Your task to perform on an android device: Open eBay Image 0: 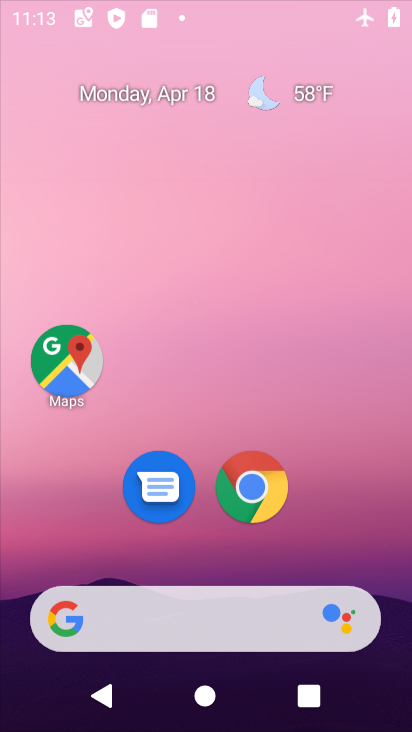
Step 0: drag from (305, 308) to (243, 140)
Your task to perform on an android device: Open eBay Image 1: 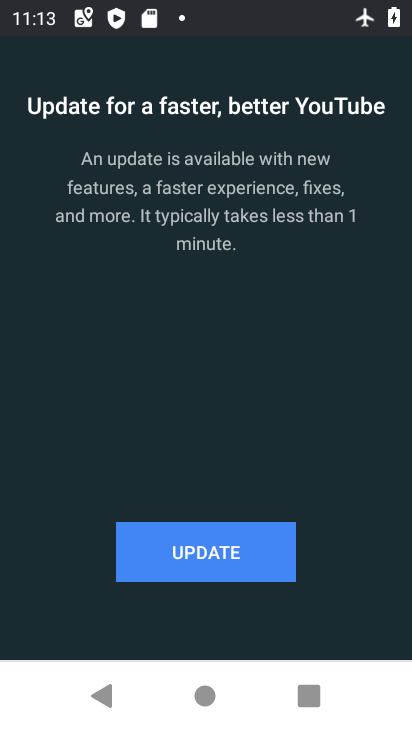
Step 1: press home button
Your task to perform on an android device: Open eBay Image 2: 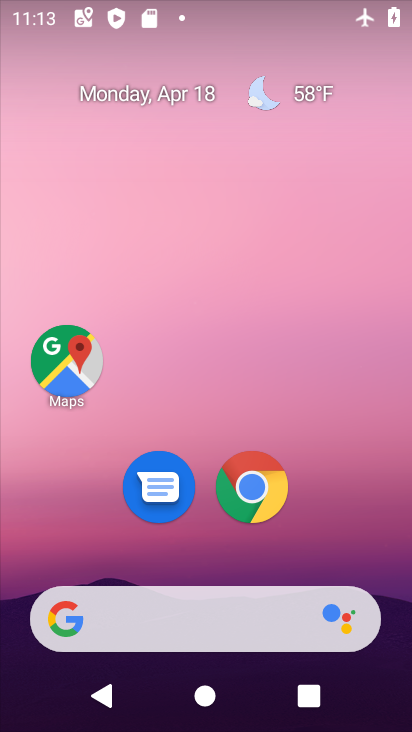
Step 2: drag from (370, 3) to (394, 506)
Your task to perform on an android device: Open eBay Image 3: 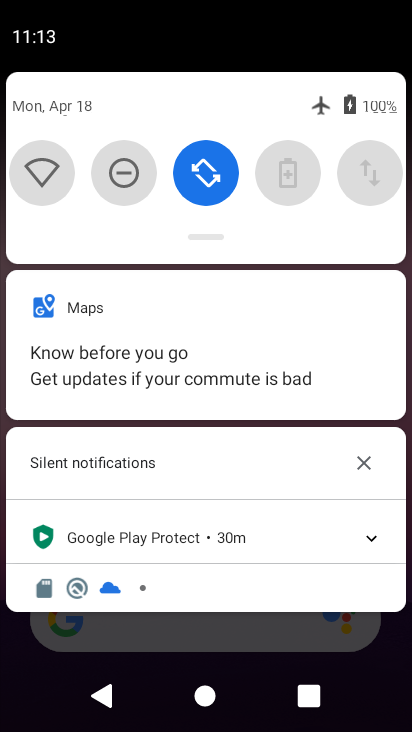
Step 3: drag from (295, 210) to (318, 580)
Your task to perform on an android device: Open eBay Image 4: 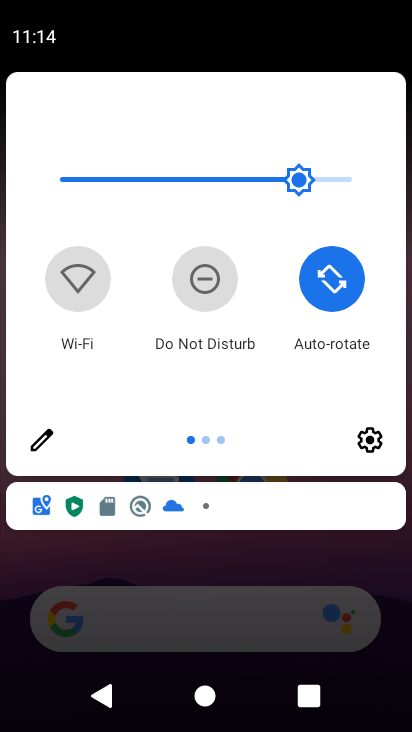
Step 4: drag from (381, 362) to (50, 327)
Your task to perform on an android device: Open eBay Image 5: 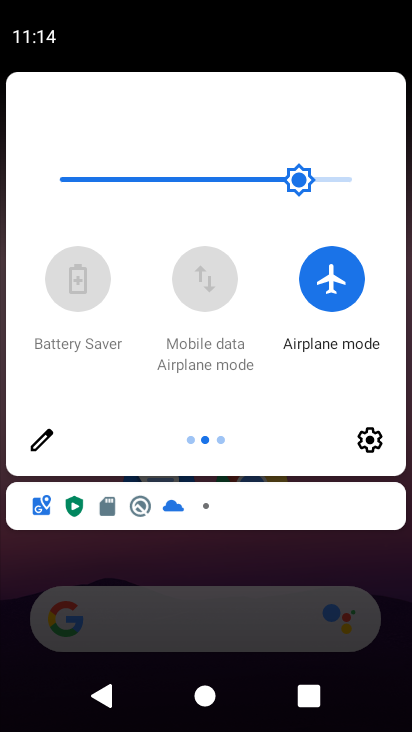
Step 5: click (317, 277)
Your task to perform on an android device: Open eBay Image 6: 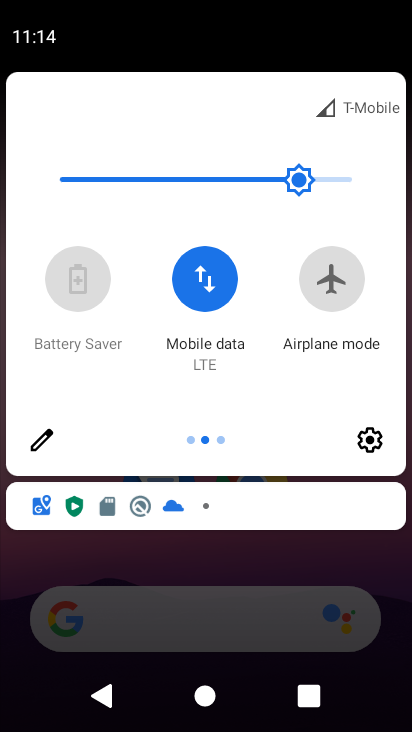
Step 6: drag from (275, 601) to (243, 298)
Your task to perform on an android device: Open eBay Image 7: 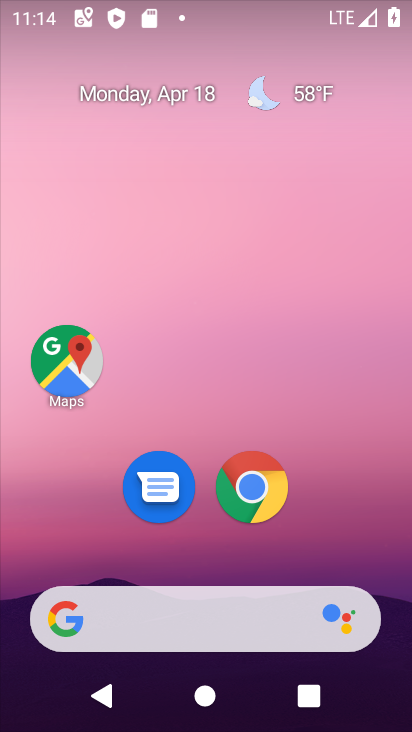
Step 7: click (259, 497)
Your task to perform on an android device: Open eBay Image 8: 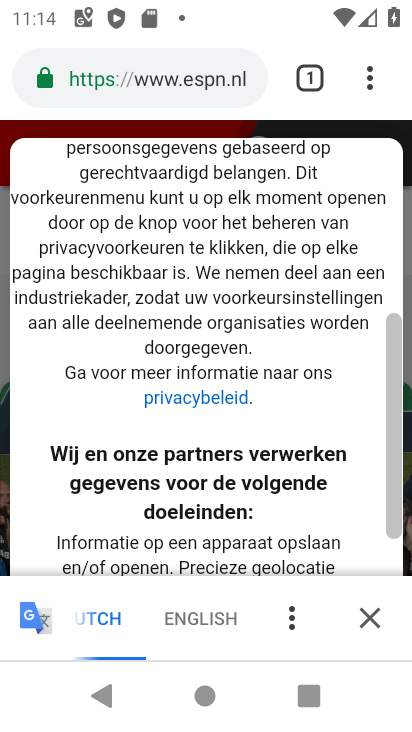
Step 8: click (304, 60)
Your task to perform on an android device: Open eBay Image 9: 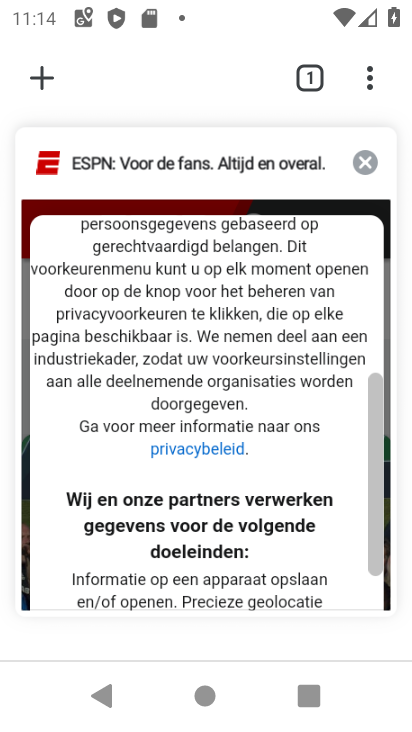
Step 9: click (373, 164)
Your task to perform on an android device: Open eBay Image 10: 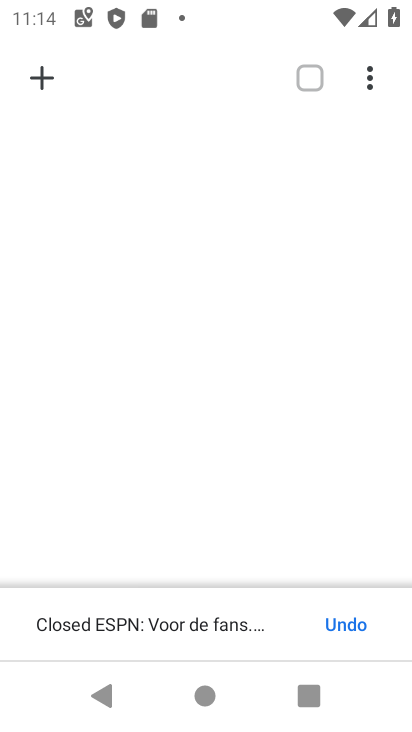
Step 10: click (58, 77)
Your task to perform on an android device: Open eBay Image 11: 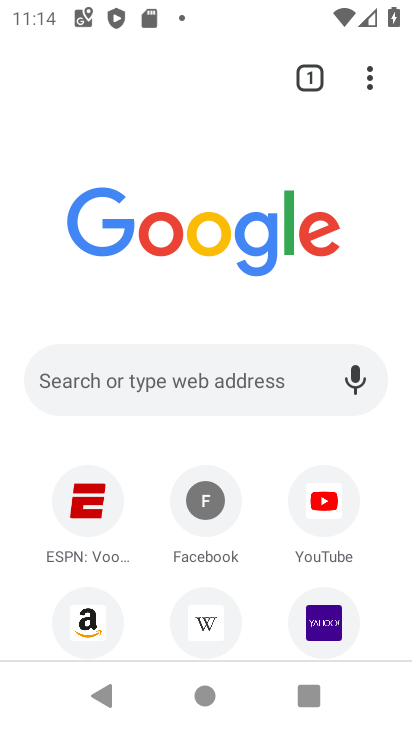
Step 11: click (131, 354)
Your task to perform on an android device: Open eBay Image 12: 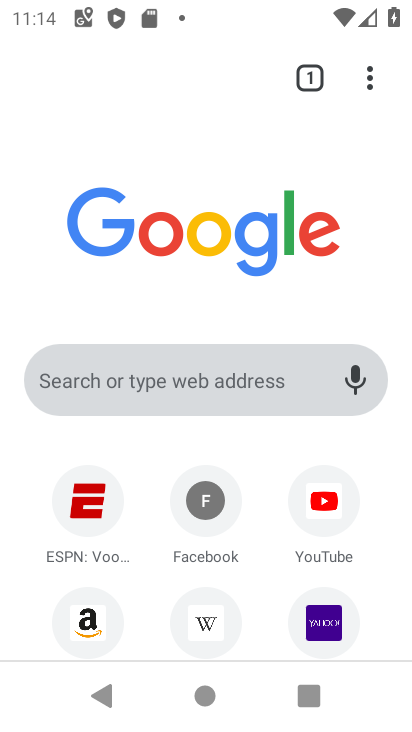
Step 12: click (131, 354)
Your task to perform on an android device: Open eBay Image 13: 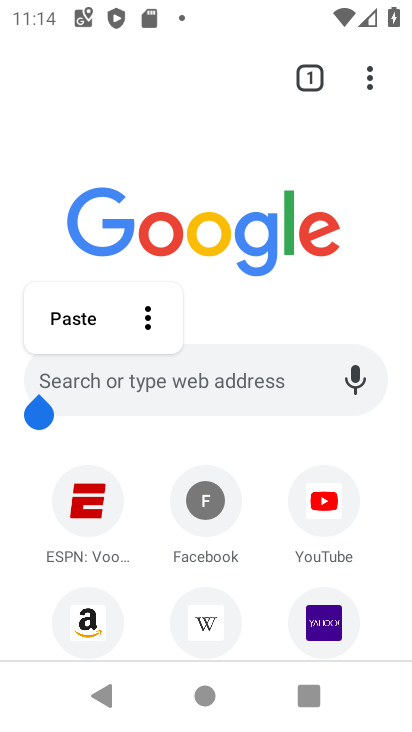
Step 13: drag from (169, 468) to (163, 388)
Your task to perform on an android device: Open eBay Image 14: 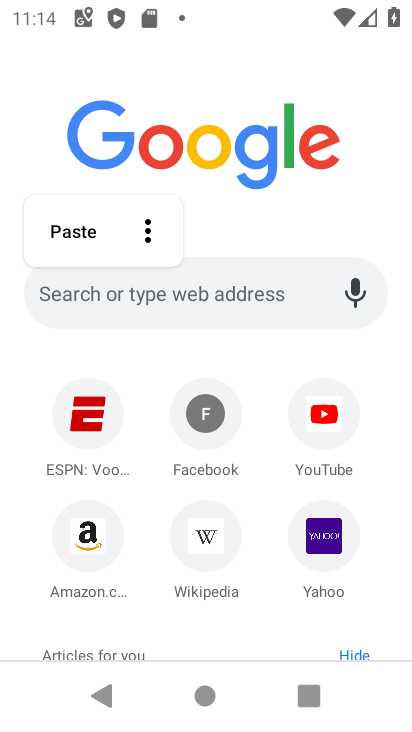
Step 14: click (173, 303)
Your task to perform on an android device: Open eBay Image 15: 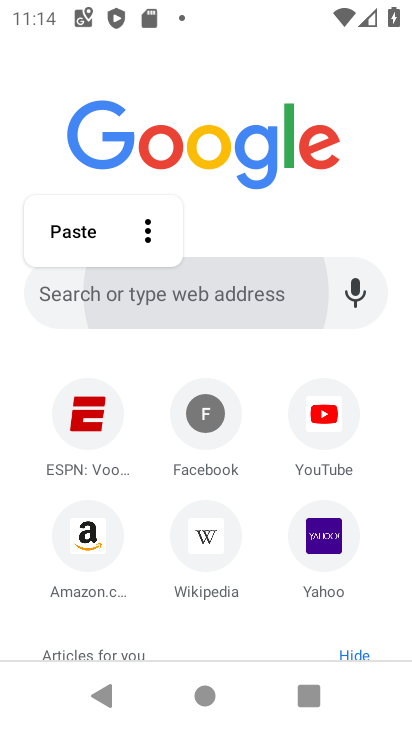
Step 15: click (173, 303)
Your task to perform on an android device: Open eBay Image 16: 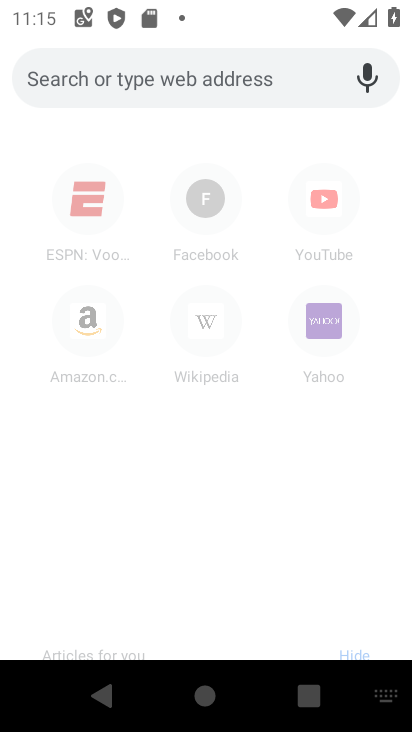
Step 16: type "ebay.com"
Your task to perform on an android device: Open eBay Image 17: 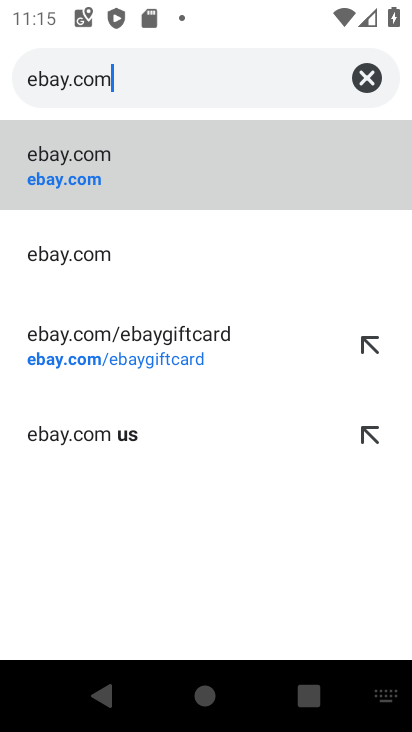
Step 17: click (111, 163)
Your task to perform on an android device: Open eBay Image 18: 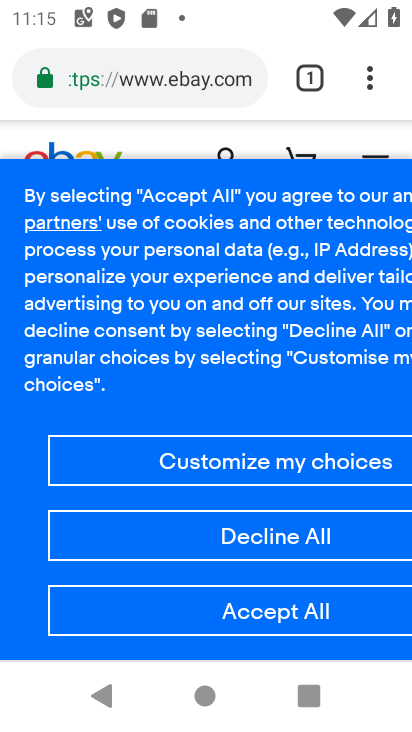
Step 18: task complete